Your task to perform on an android device: toggle priority inbox in the gmail app Image 0: 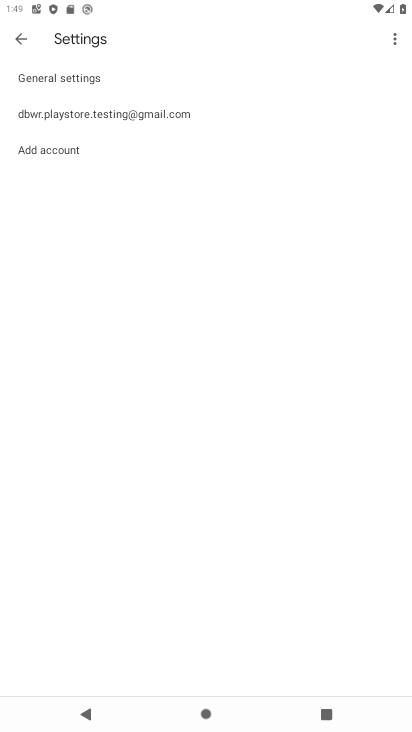
Step 0: click (76, 111)
Your task to perform on an android device: toggle priority inbox in the gmail app Image 1: 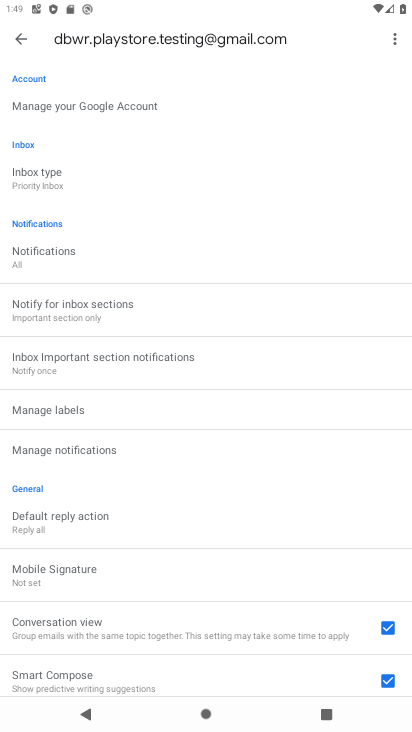
Step 1: click (37, 173)
Your task to perform on an android device: toggle priority inbox in the gmail app Image 2: 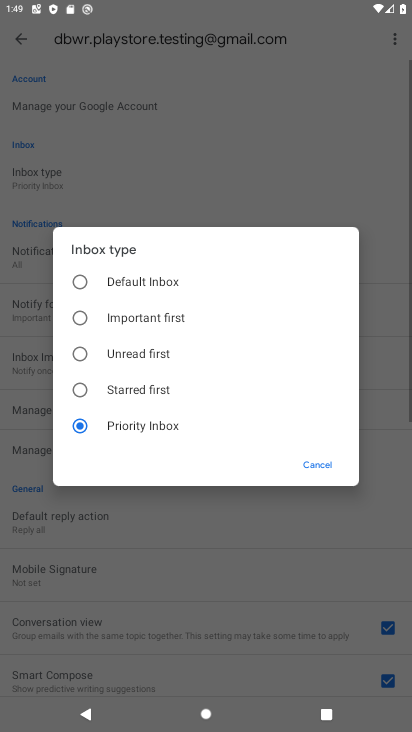
Step 2: click (103, 286)
Your task to perform on an android device: toggle priority inbox in the gmail app Image 3: 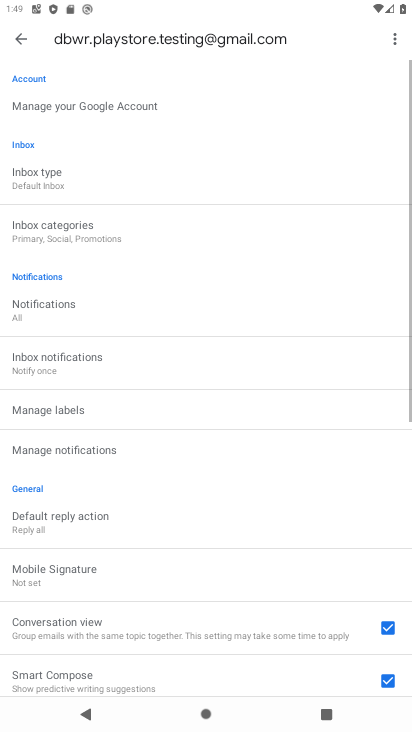
Step 3: task complete